Your task to perform on an android device: turn off data saver in the chrome app Image 0: 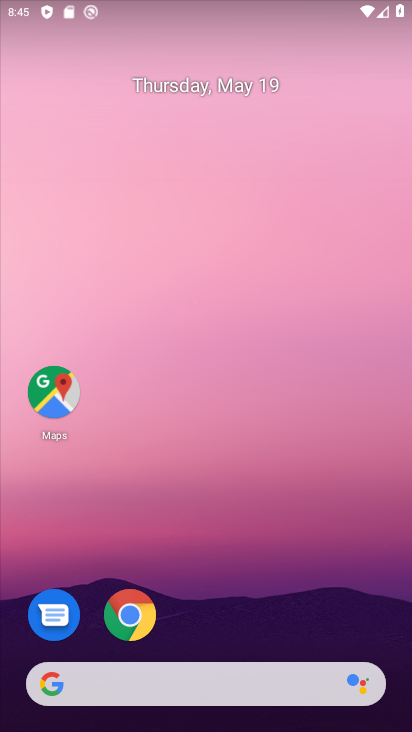
Step 0: click (119, 616)
Your task to perform on an android device: turn off data saver in the chrome app Image 1: 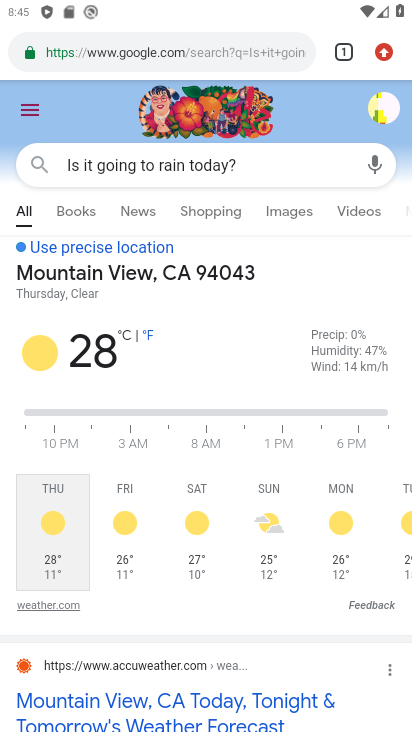
Step 1: drag from (393, 47) to (198, 642)
Your task to perform on an android device: turn off data saver in the chrome app Image 2: 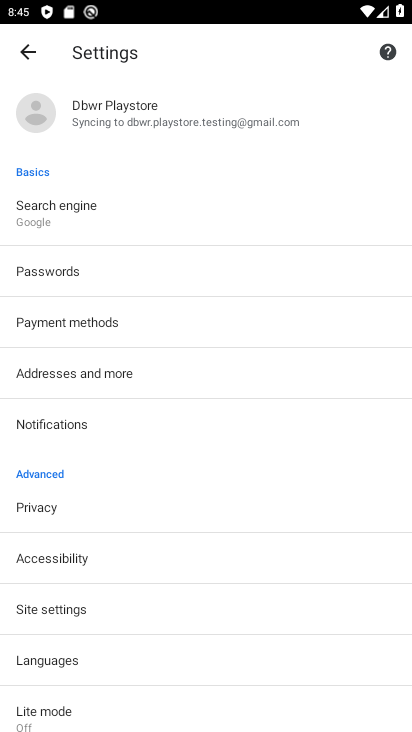
Step 2: click (110, 706)
Your task to perform on an android device: turn off data saver in the chrome app Image 3: 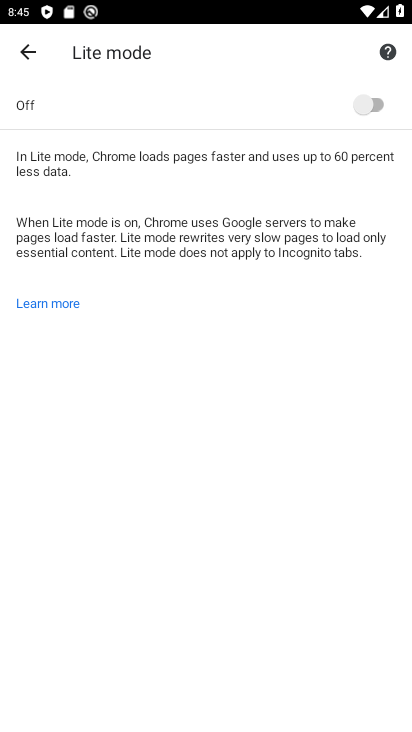
Step 3: task complete